Your task to perform on an android device: open app "Firefox Browser" Image 0: 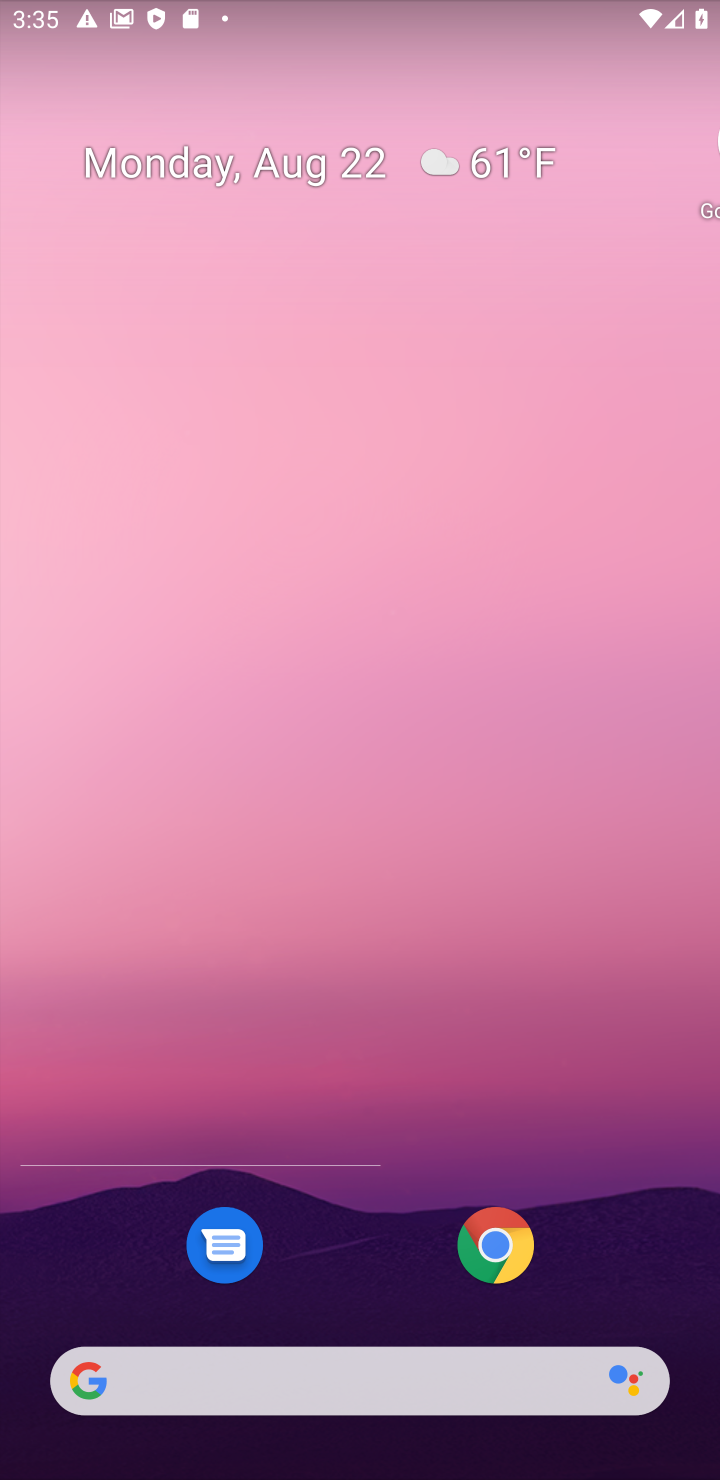
Step 0: press home button
Your task to perform on an android device: open app "Firefox Browser" Image 1: 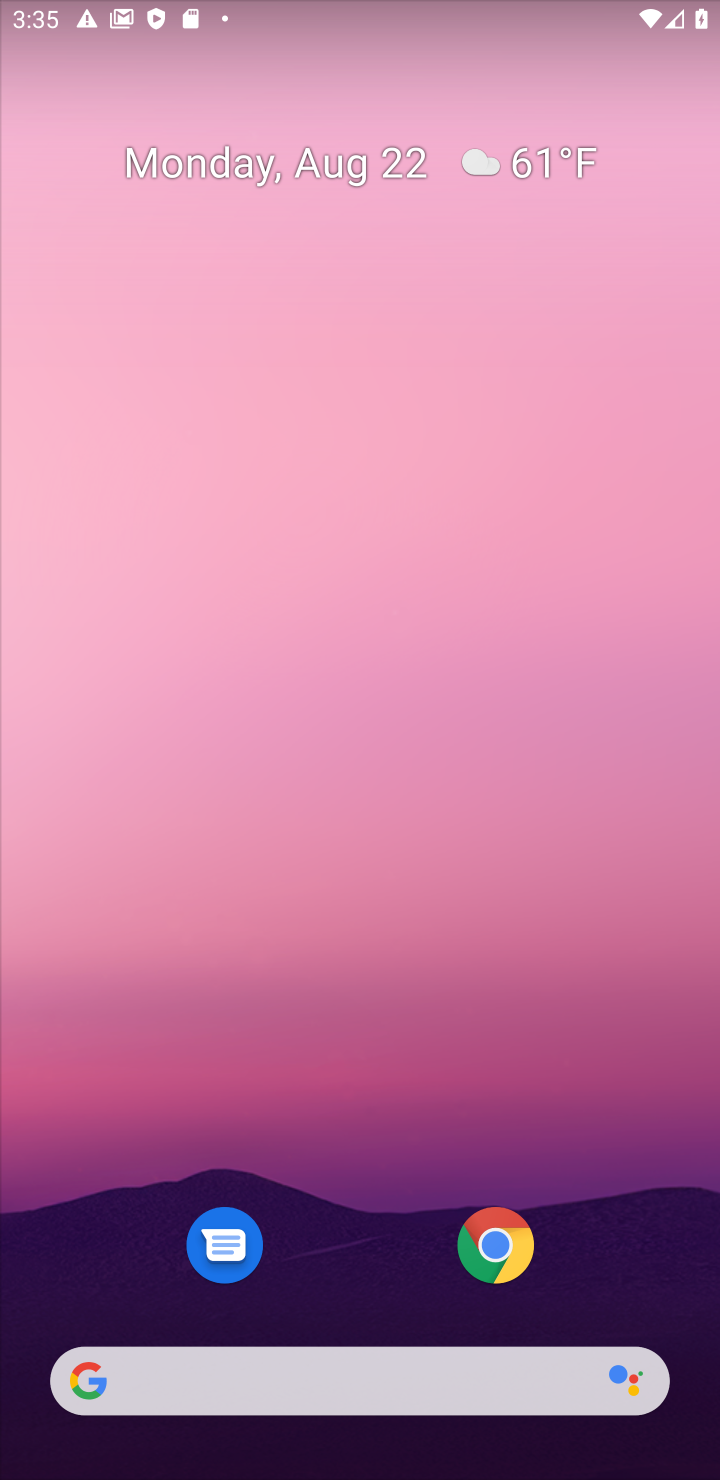
Step 1: drag from (644, 1278) to (670, 46)
Your task to perform on an android device: open app "Firefox Browser" Image 2: 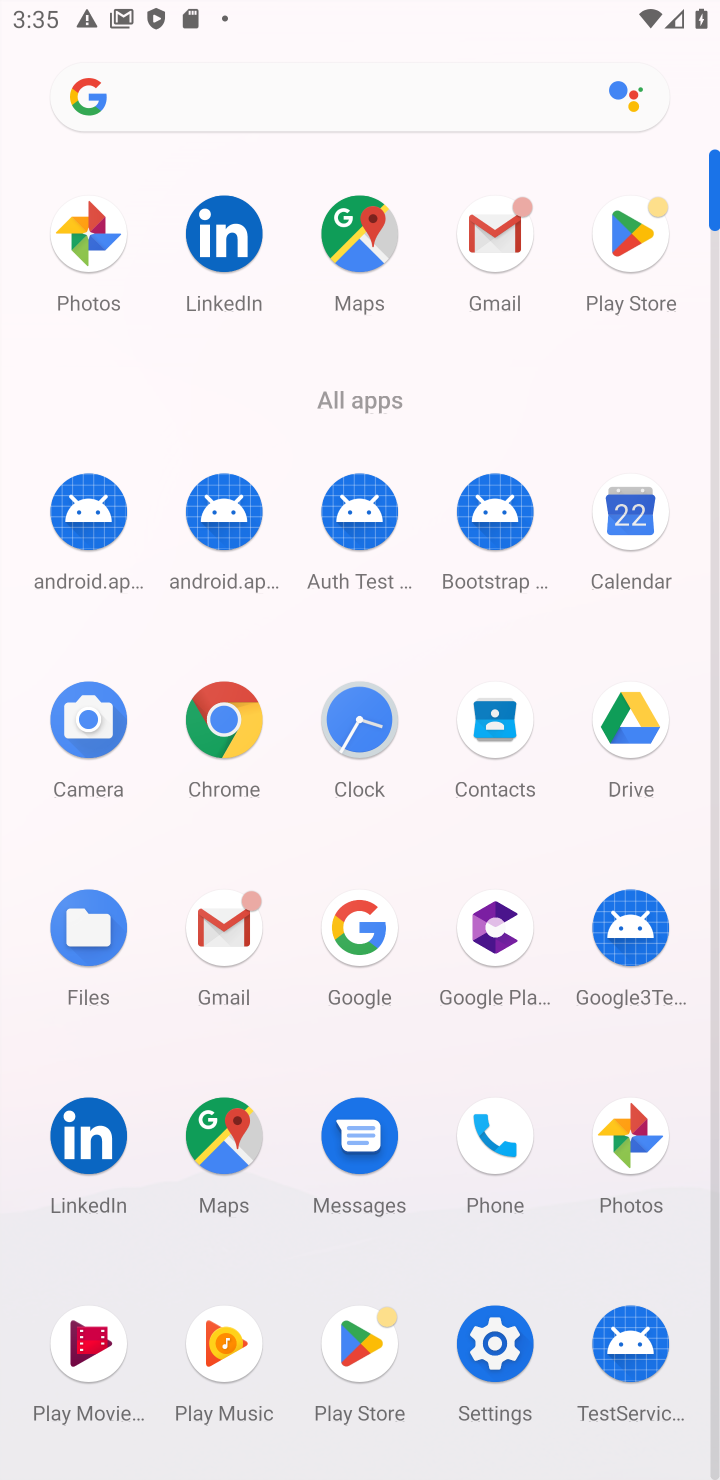
Step 2: click (630, 224)
Your task to perform on an android device: open app "Firefox Browser" Image 3: 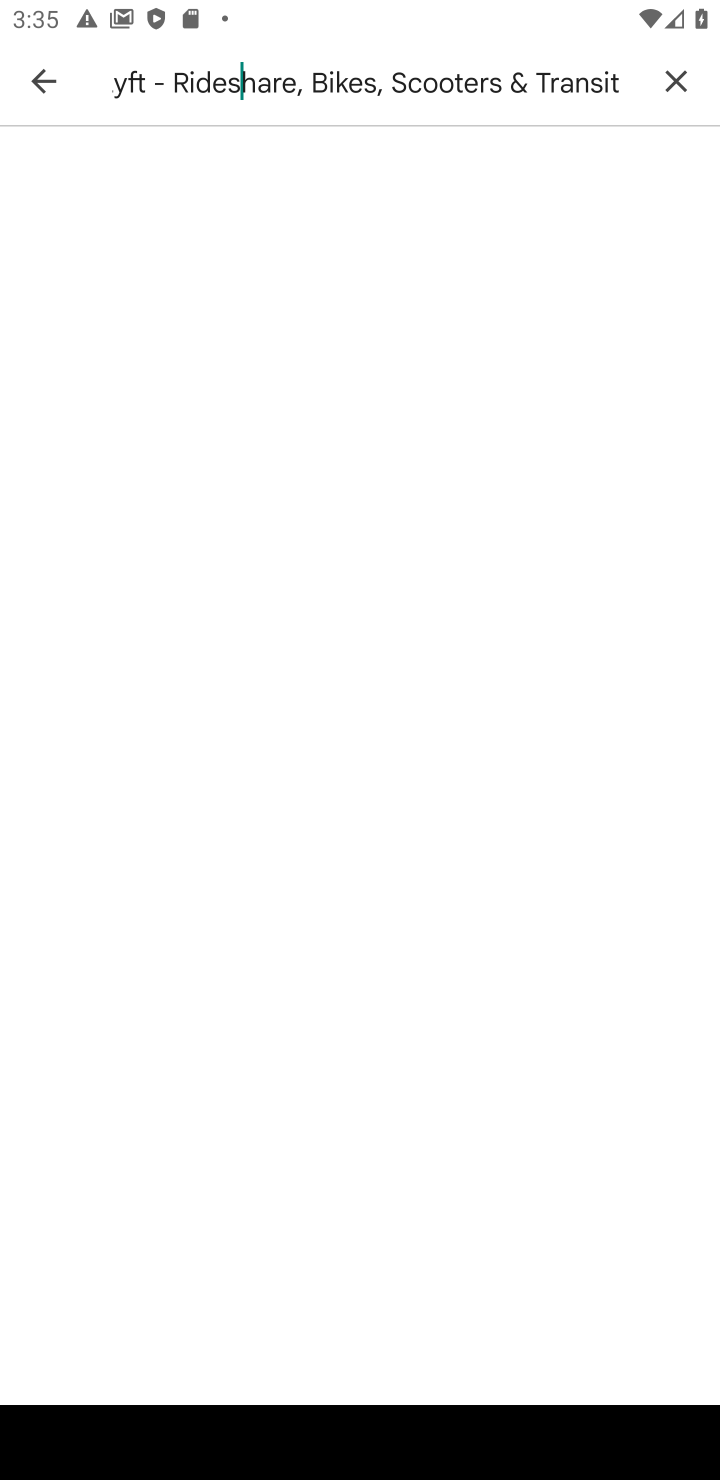
Step 3: press back button
Your task to perform on an android device: open app "Firefox Browser" Image 4: 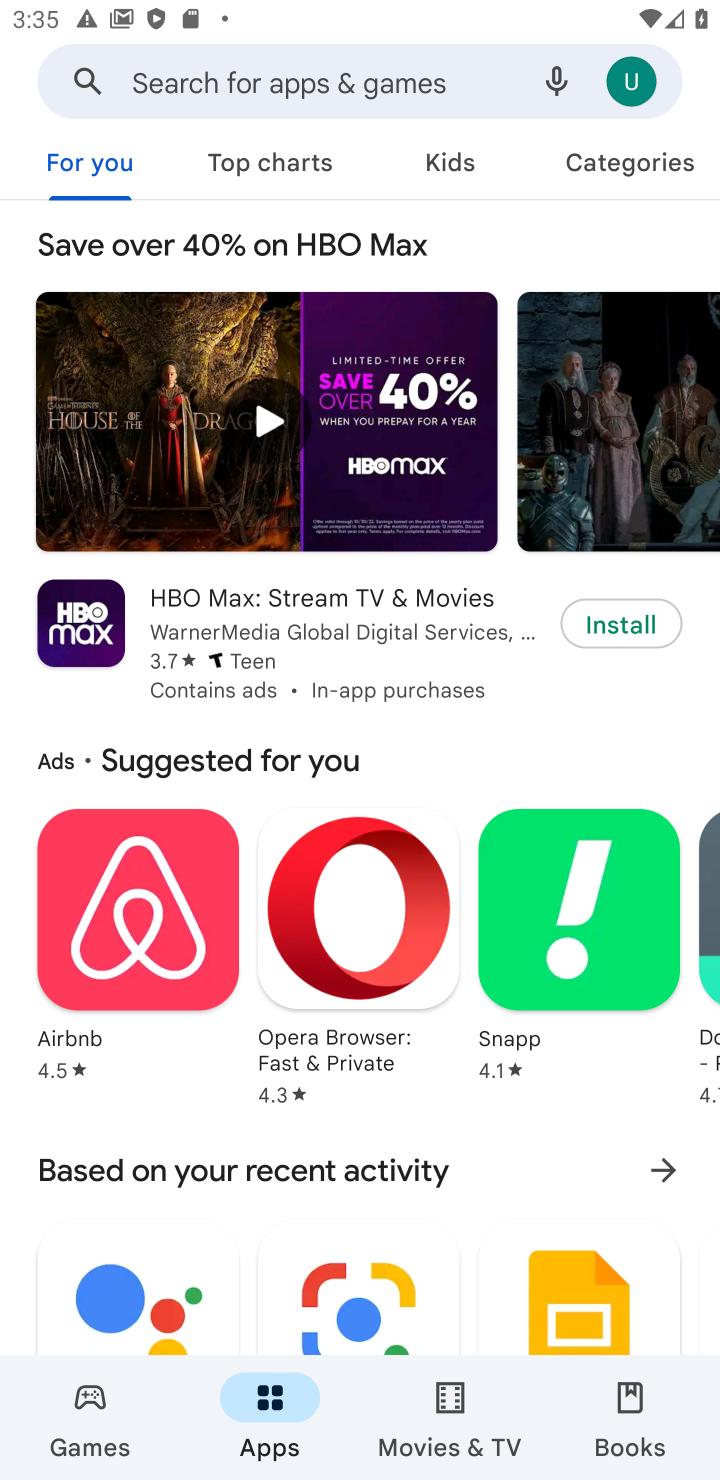
Step 4: click (334, 83)
Your task to perform on an android device: open app "Firefox Browser" Image 5: 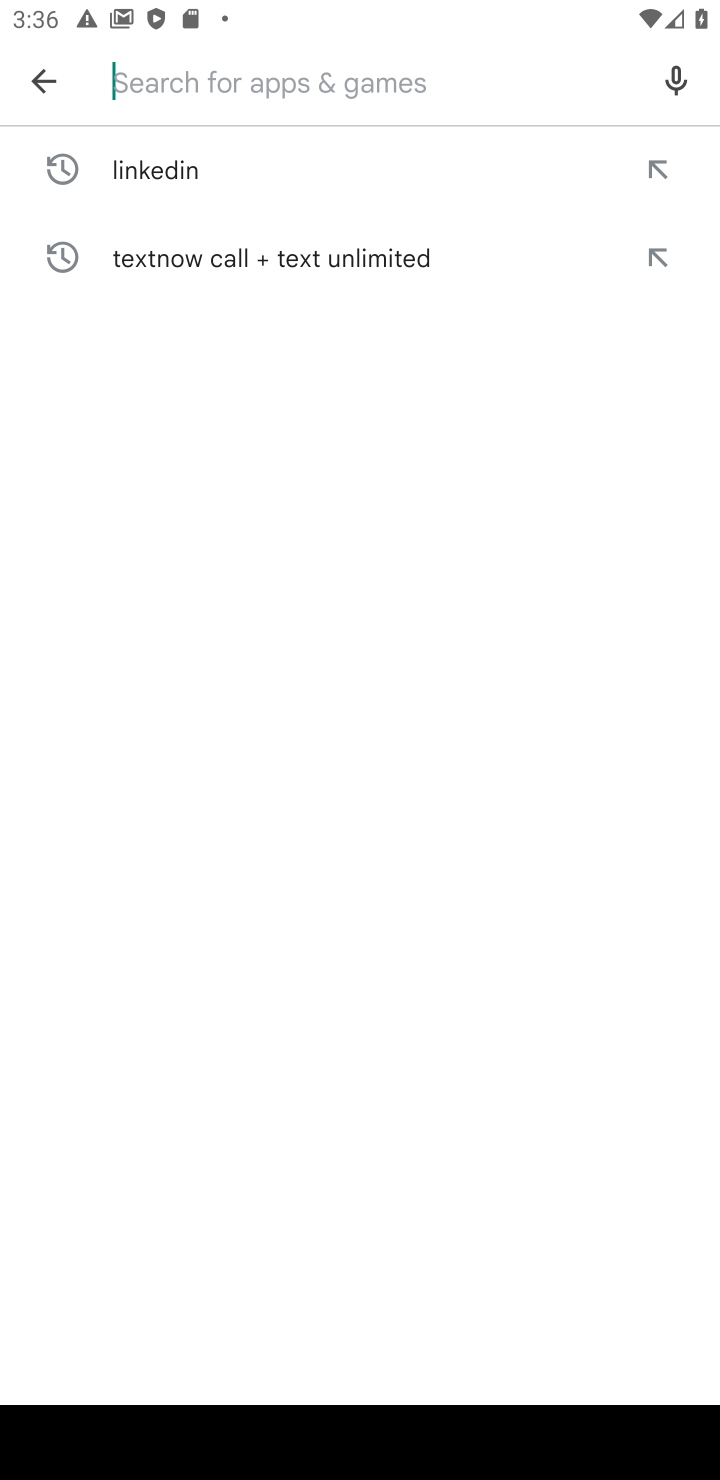
Step 5: type "Firefox Browser"
Your task to perform on an android device: open app "Firefox Browser" Image 6: 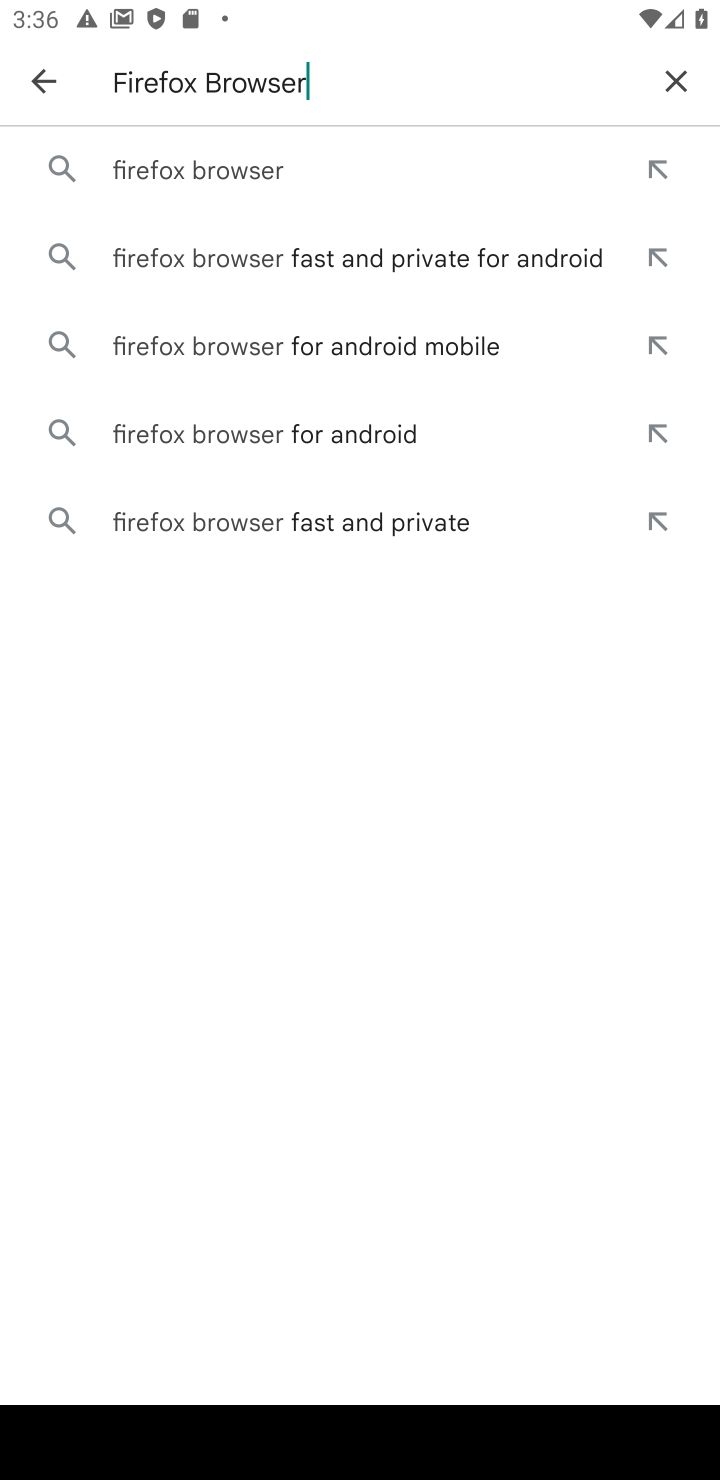
Step 6: click (302, 174)
Your task to perform on an android device: open app "Firefox Browser" Image 7: 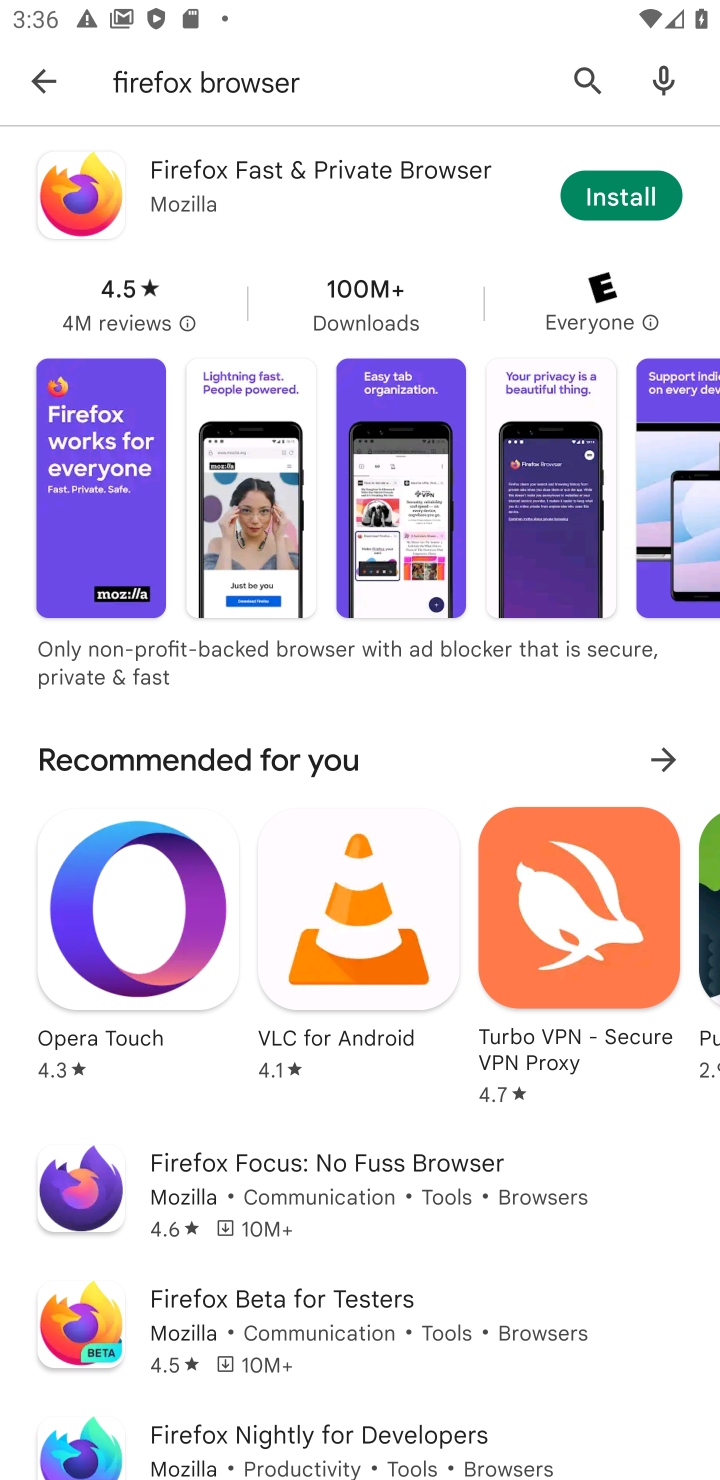
Step 7: task complete